Your task to perform on an android device: Is it going to rain today? Image 0: 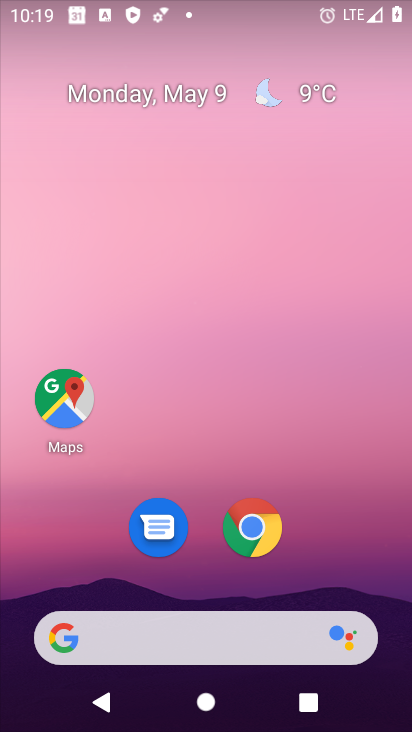
Step 0: click (266, 92)
Your task to perform on an android device: Is it going to rain today? Image 1: 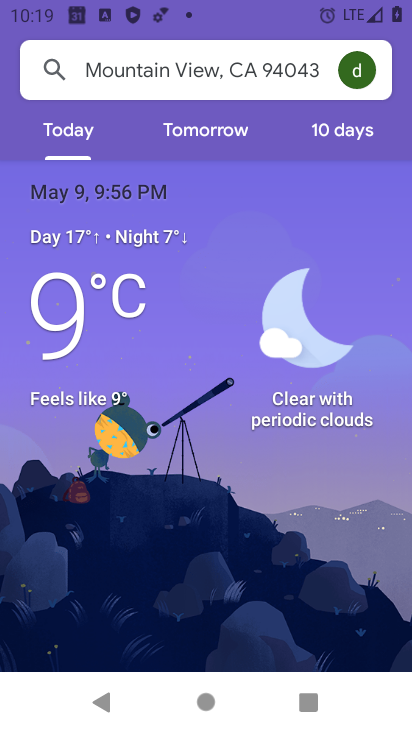
Step 1: drag from (300, 625) to (331, 290)
Your task to perform on an android device: Is it going to rain today? Image 2: 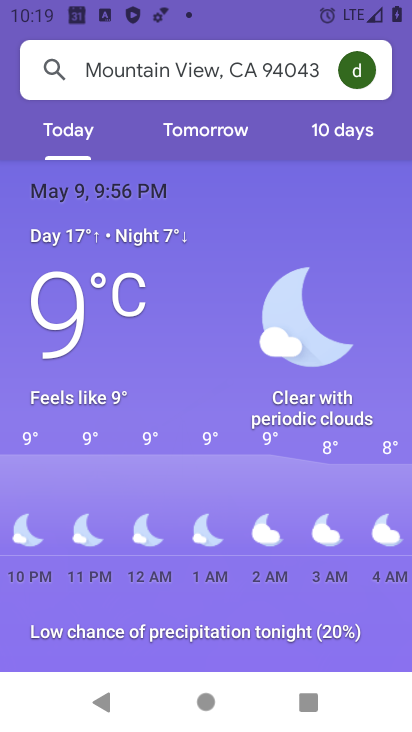
Step 2: drag from (302, 532) to (6, 494)
Your task to perform on an android device: Is it going to rain today? Image 3: 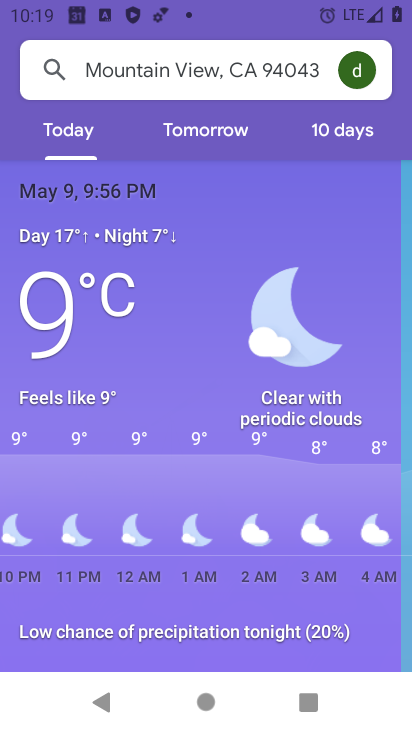
Step 3: drag from (47, 491) to (289, 489)
Your task to perform on an android device: Is it going to rain today? Image 4: 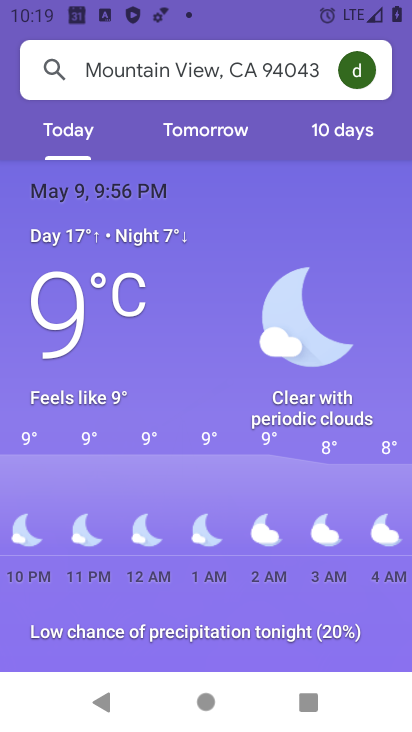
Step 4: drag from (324, 528) to (39, 558)
Your task to perform on an android device: Is it going to rain today? Image 5: 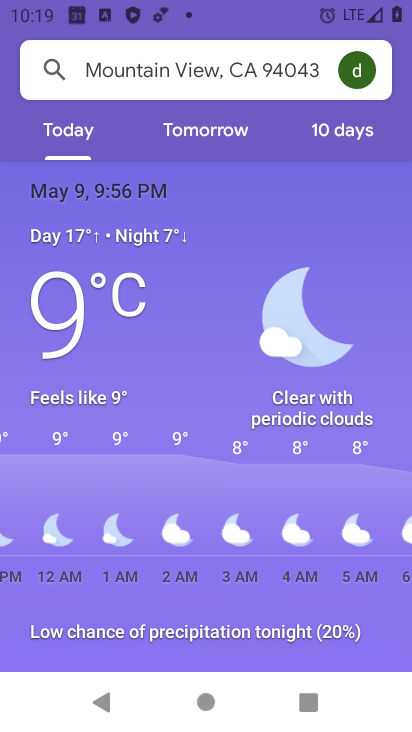
Step 5: drag from (352, 536) to (164, 552)
Your task to perform on an android device: Is it going to rain today? Image 6: 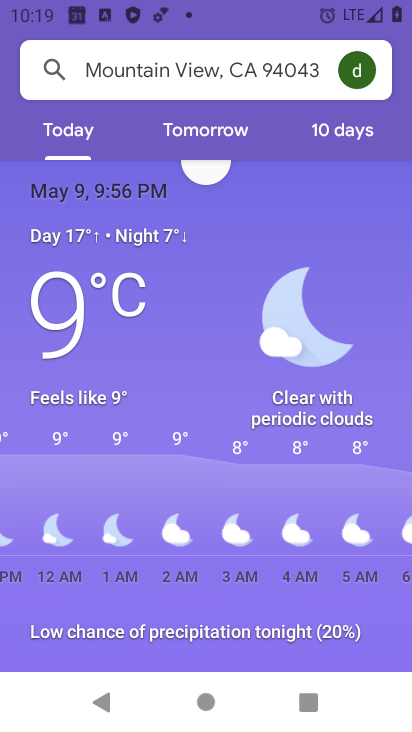
Step 6: click (164, 552)
Your task to perform on an android device: Is it going to rain today? Image 7: 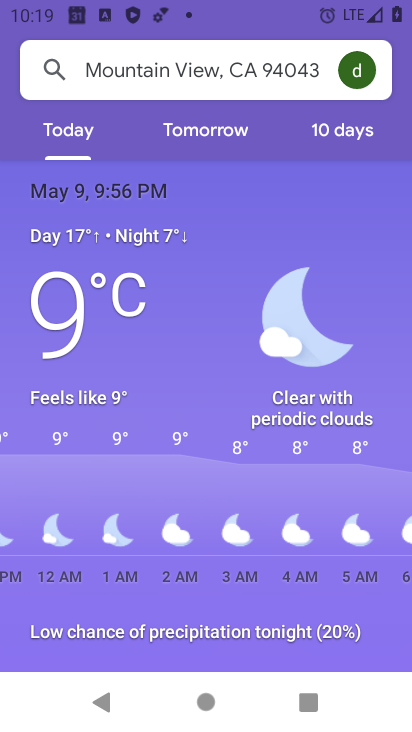
Step 7: click (164, 552)
Your task to perform on an android device: Is it going to rain today? Image 8: 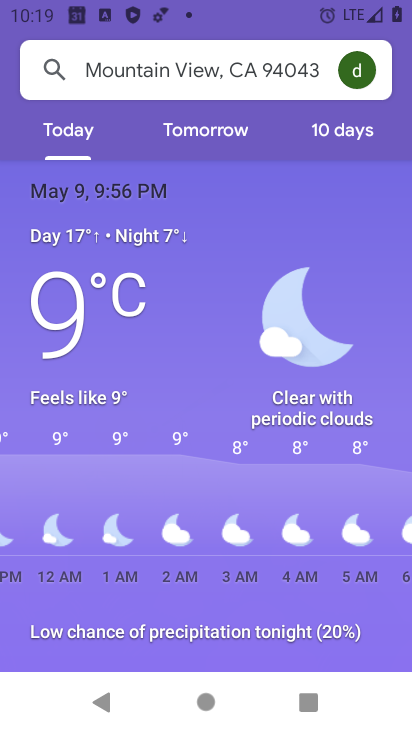
Step 8: task complete